Your task to perform on an android device: Show the shopping cart on bestbuy.com. Add razer blade to the cart on bestbuy.com Image 0: 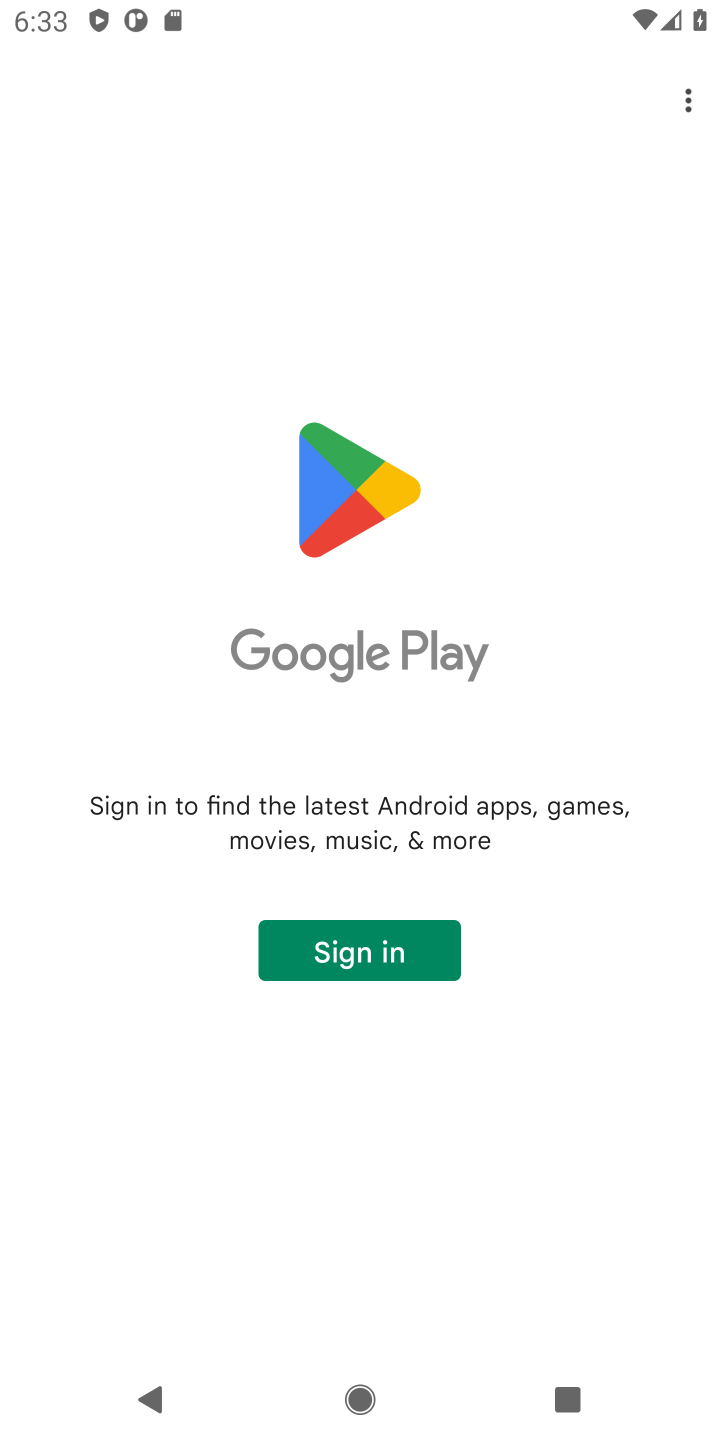
Step 0: press home button
Your task to perform on an android device: Show the shopping cart on bestbuy.com. Add razer blade to the cart on bestbuy.com Image 1: 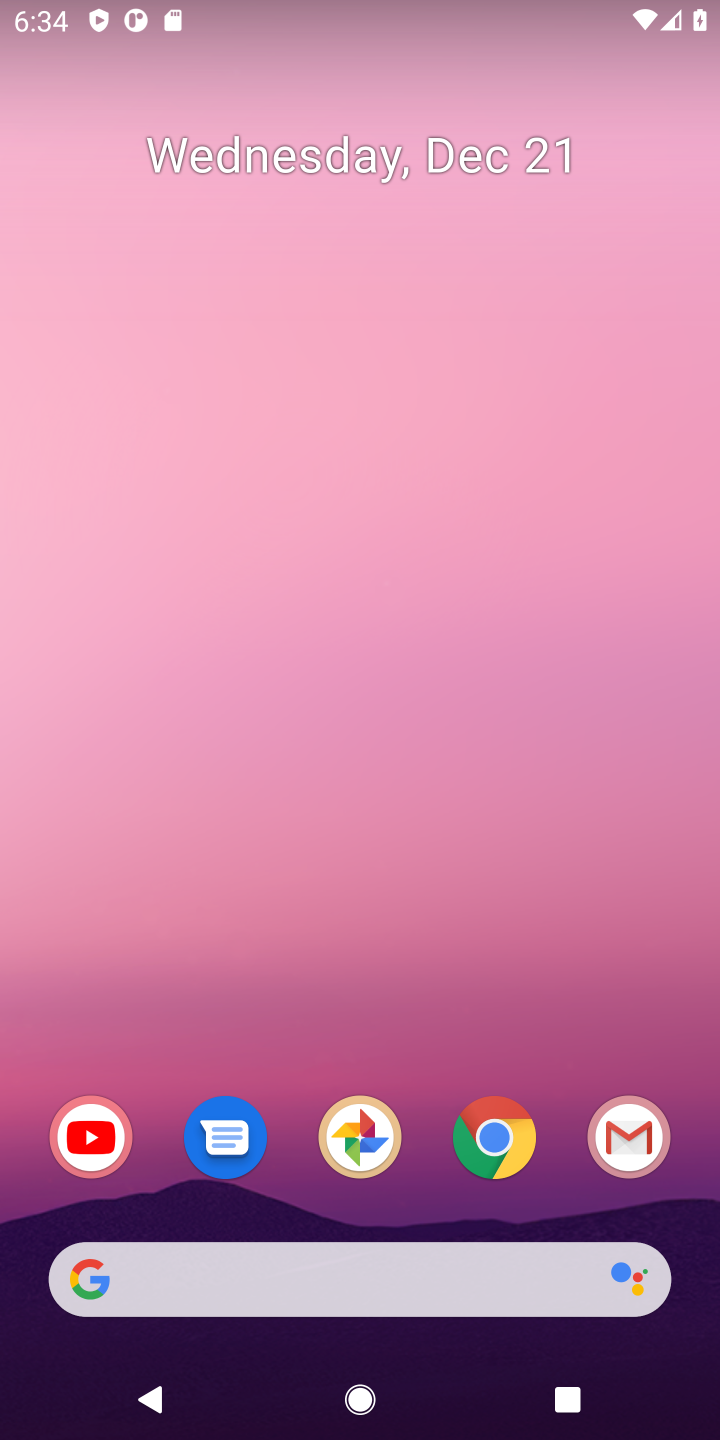
Step 1: click (499, 1147)
Your task to perform on an android device: Show the shopping cart on bestbuy.com. Add razer blade to the cart on bestbuy.com Image 2: 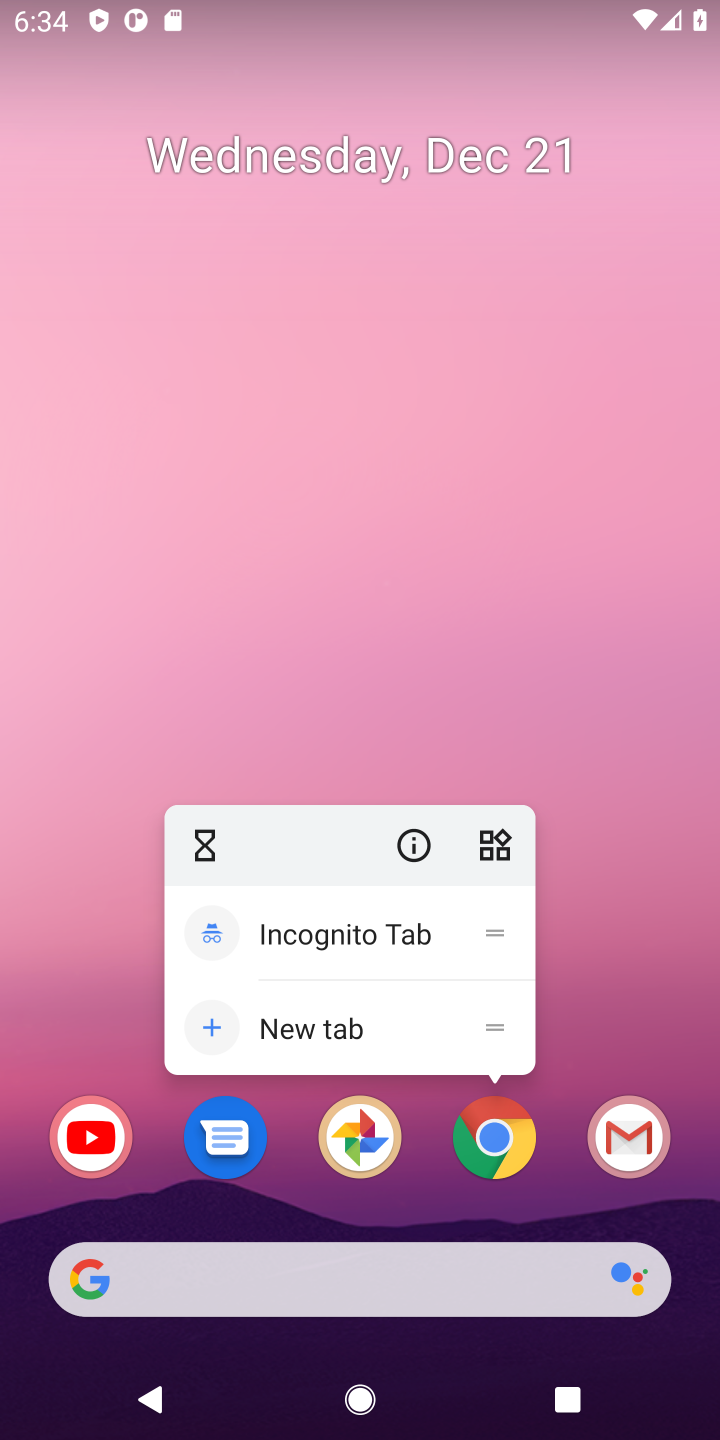
Step 2: click (499, 1147)
Your task to perform on an android device: Show the shopping cart on bestbuy.com. Add razer blade to the cart on bestbuy.com Image 3: 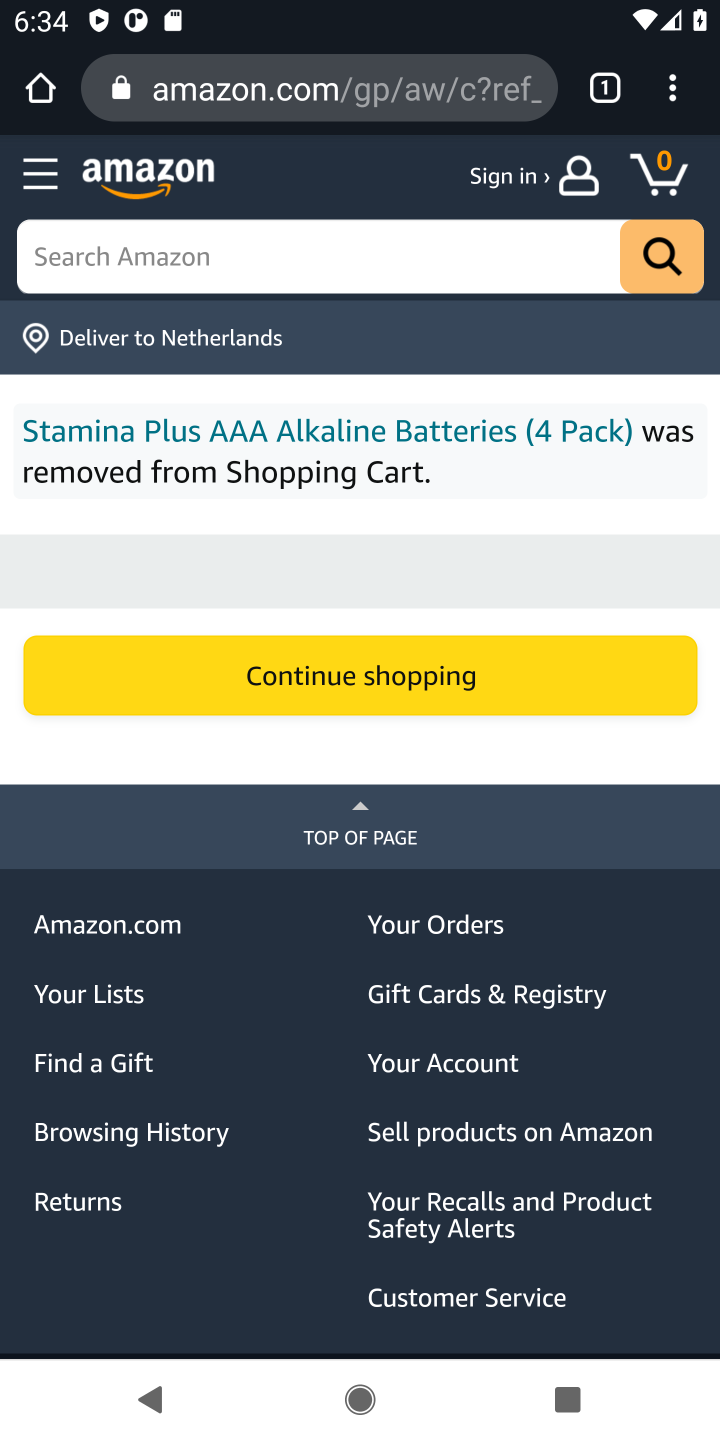
Step 3: click (284, 84)
Your task to perform on an android device: Show the shopping cart on bestbuy.com. Add razer blade to the cart on bestbuy.com Image 4: 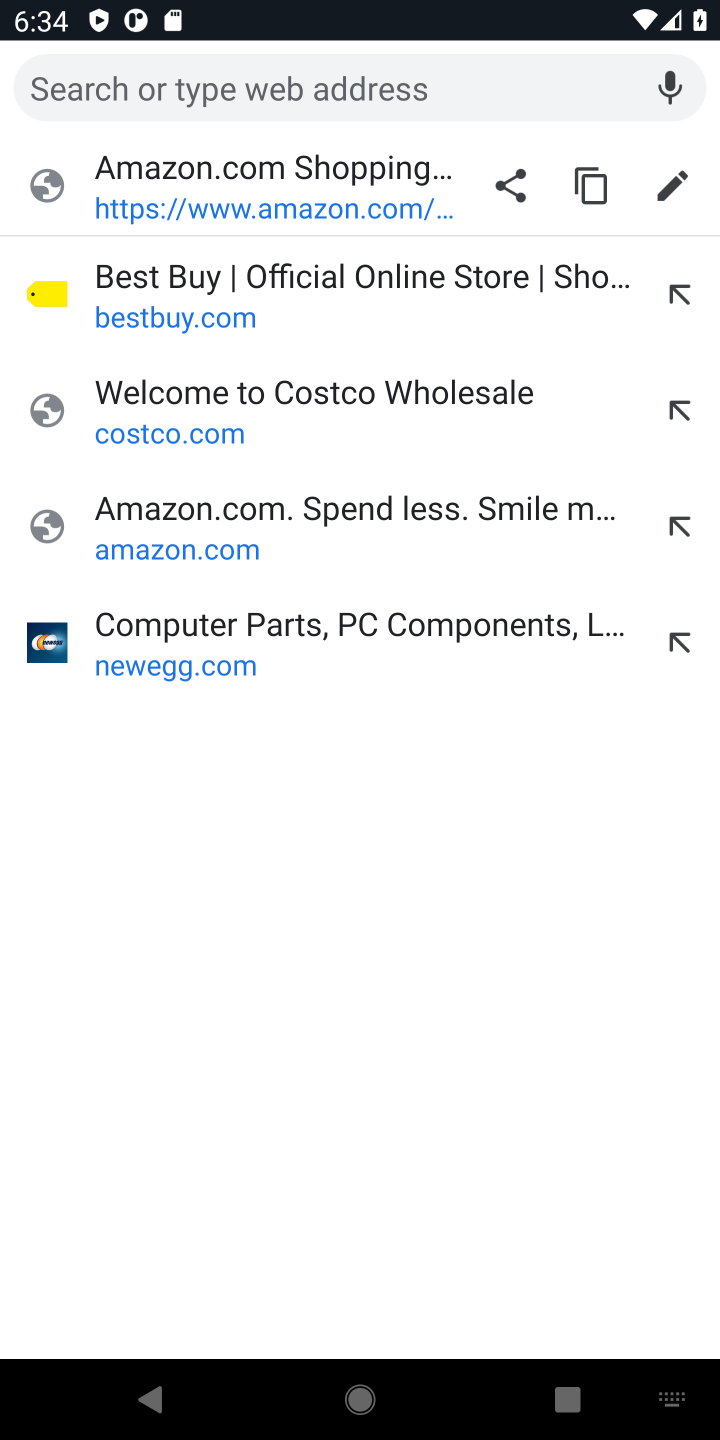
Step 4: click (157, 313)
Your task to perform on an android device: Show the shopping cart on bestbuy.com. Add razer blade to the cart on bestbuy.com Image 5: 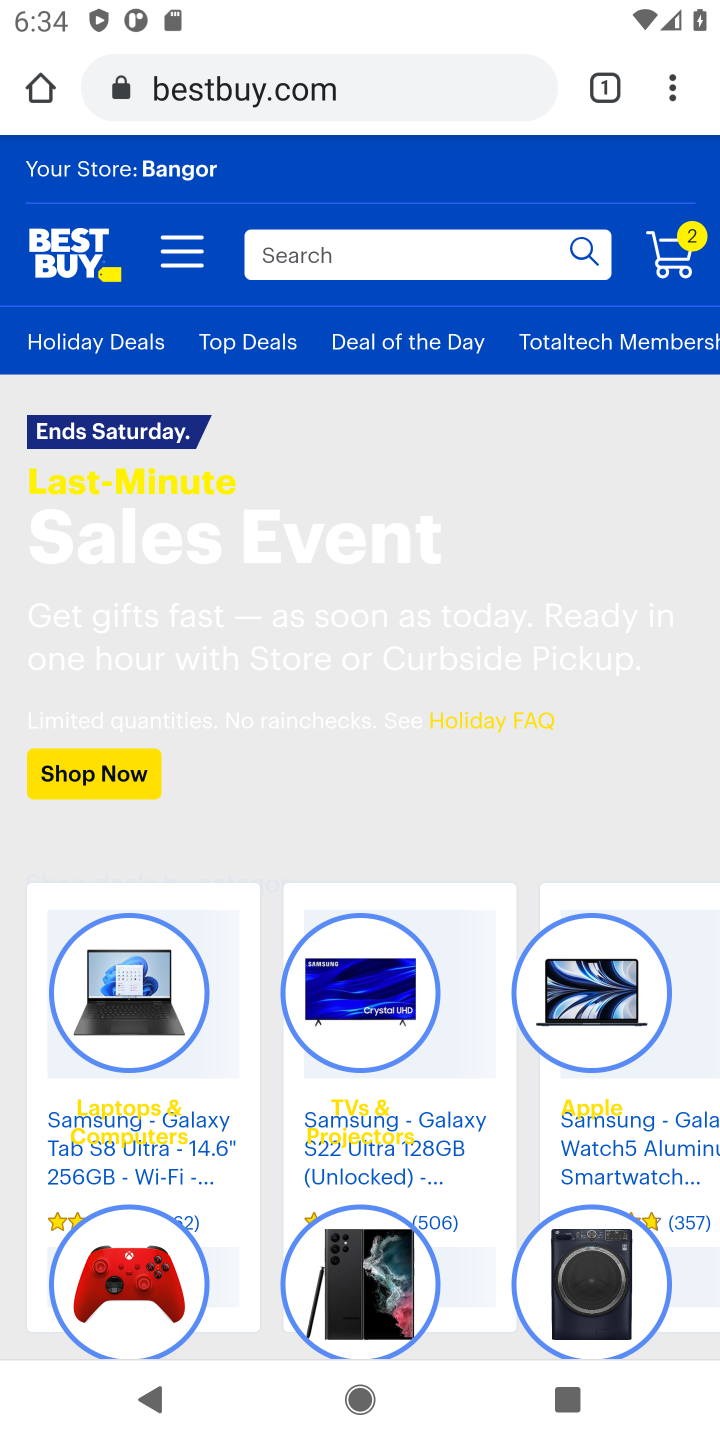
Step 5: click (669, 257)
Your task to perform on an android device: Show the shopping cart on bestbuy.com. Add razer blade to the cart on bestbuy.com Image 6: 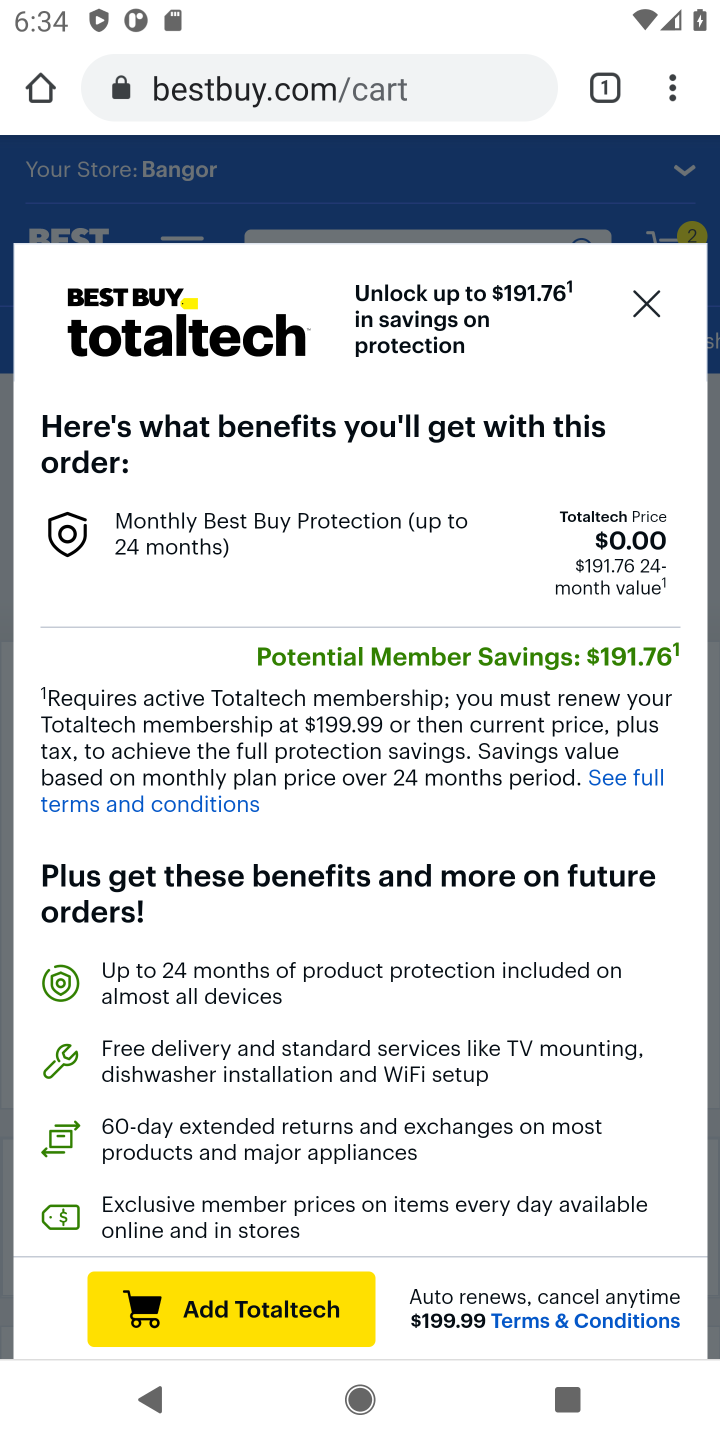
Step 6: click (659, 313)
Your task to perform on an android device: Show the shopping cart on bestbuy.com. Add razer blade to the cart on bestbuy.com Image 7: 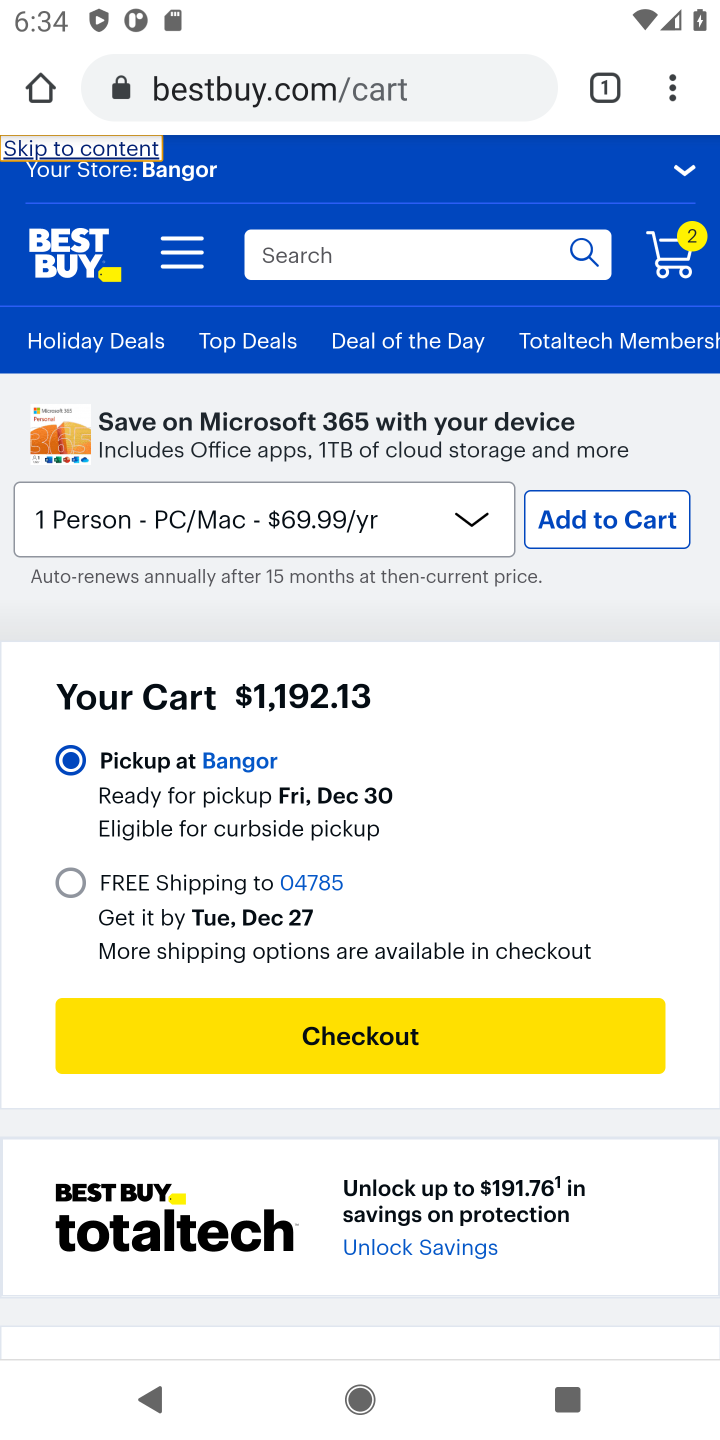
Step 7: click (284, 259)
Your task to perform on an android device: Show the shopping cart on bestbuy.com. Add razer blade to the cart on bestbuy.com Image 8: 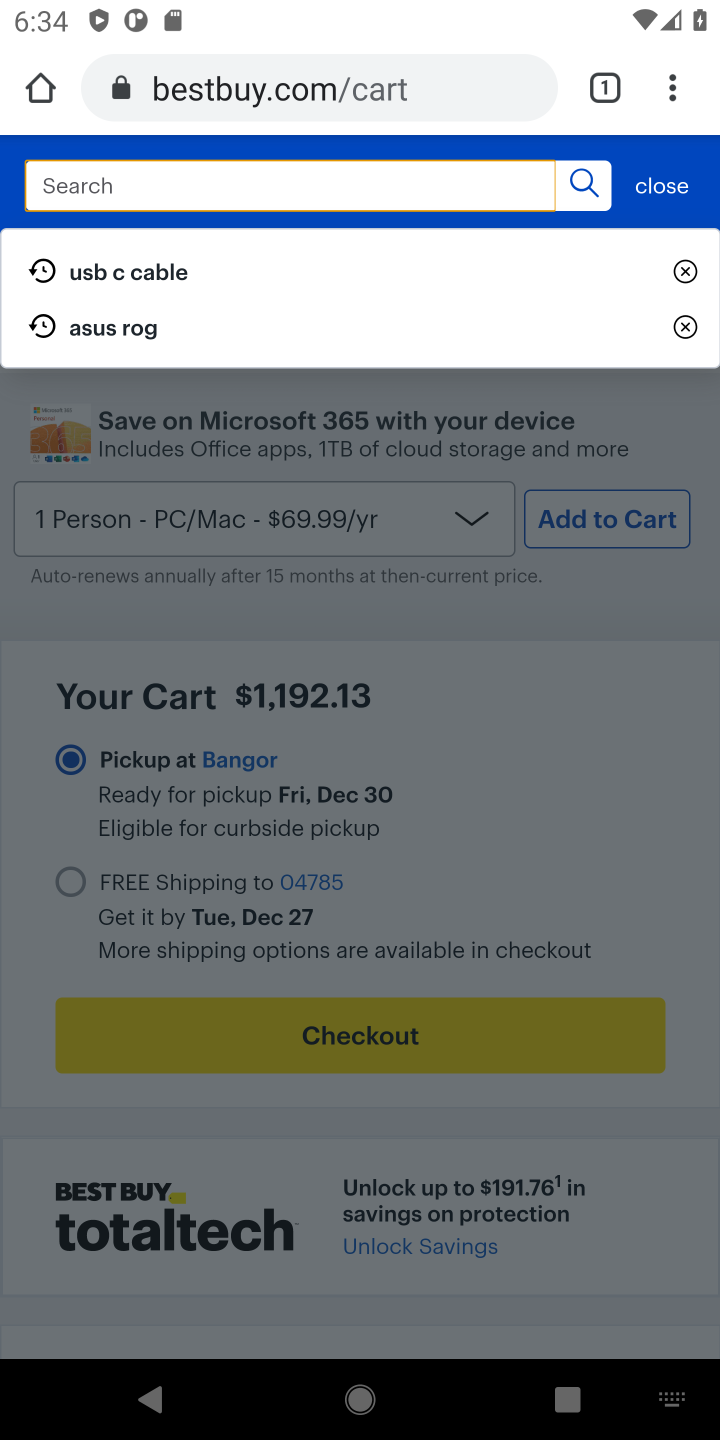
Step 8: type "razer blade"
Your task to perform on an android device: Show the shopping cart on bestbuy.com. Add razer blade to the cart on bestbuy.com Image 9: 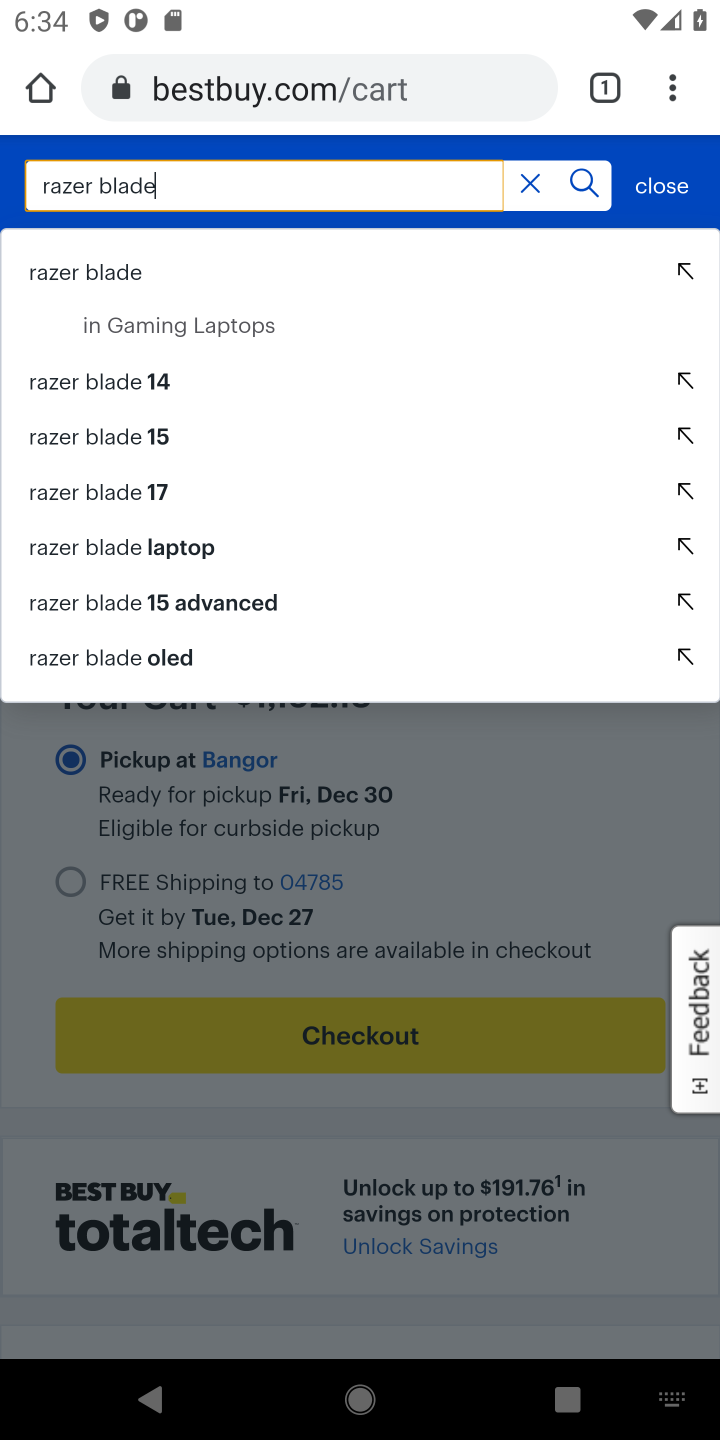
Step 9: click (106, 277)
Your task to perform on an android device: Show the shopping cart on bestbuy.com. Add razer blade to the cart on bestbuy.com Image 10: 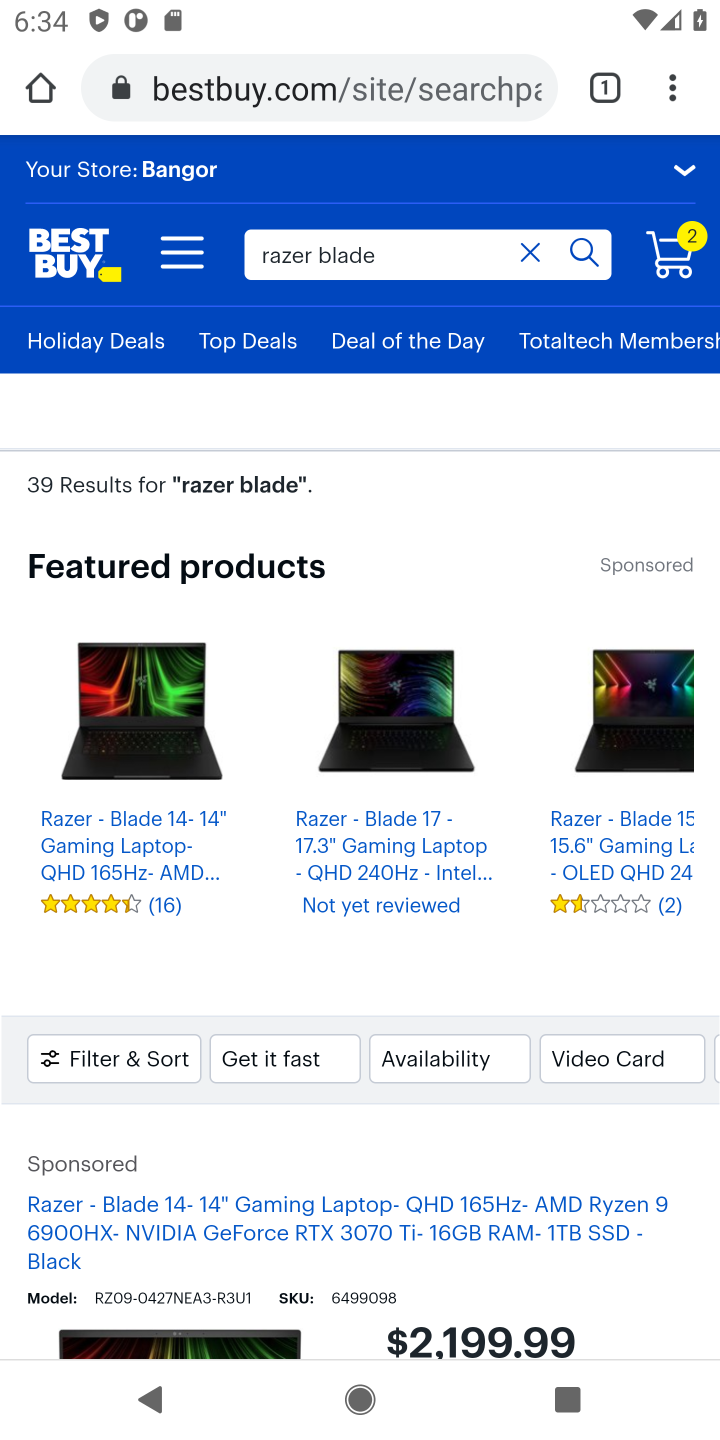
Step 10: drag from (320, 1081) to (304, 534)
Your task to perform on an android device: Show the shopping cart on bestbuy.com. Add razer blade to the cart on bestbuy.com Image 11: 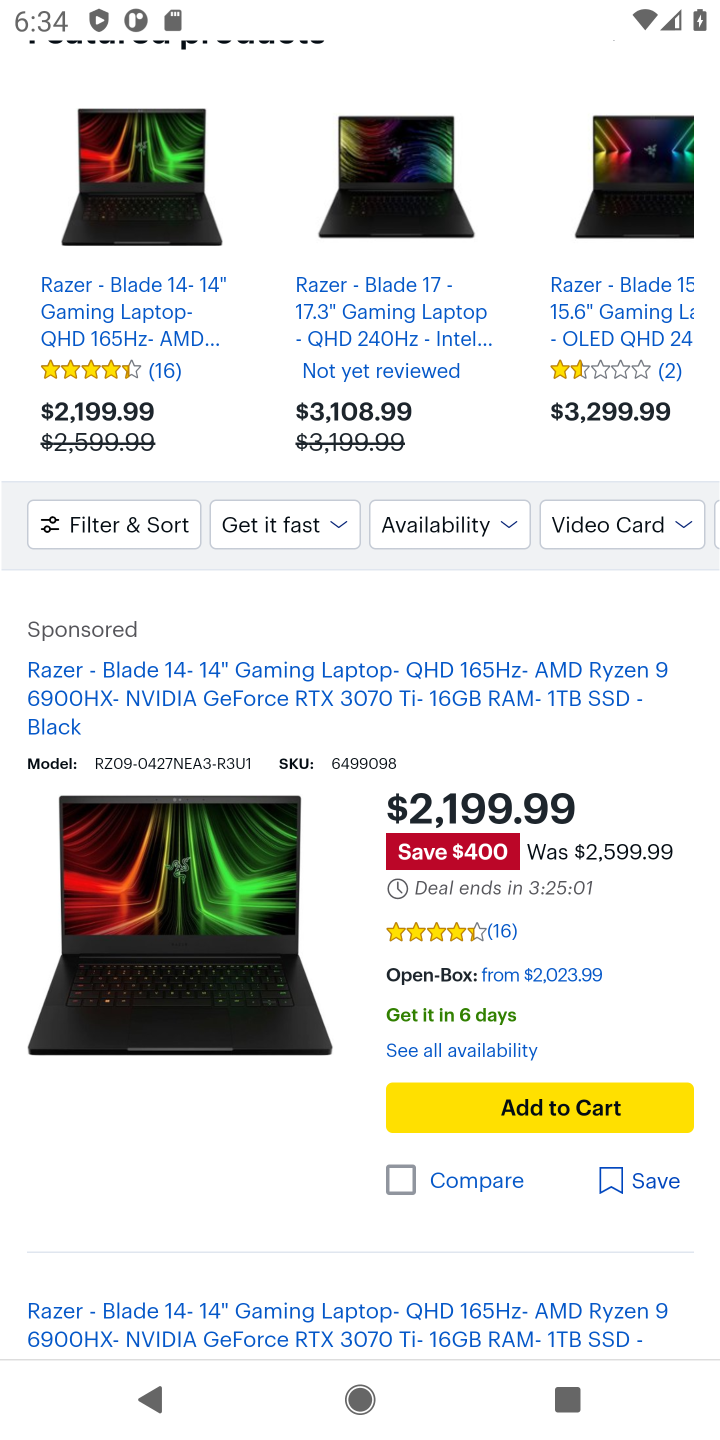
Step 11: click (507, 1105)
Your task to perform on an android device: Show the shopping cart on bestbuy.com. Add razer blade to the cart on bestbuy.com Image 12: 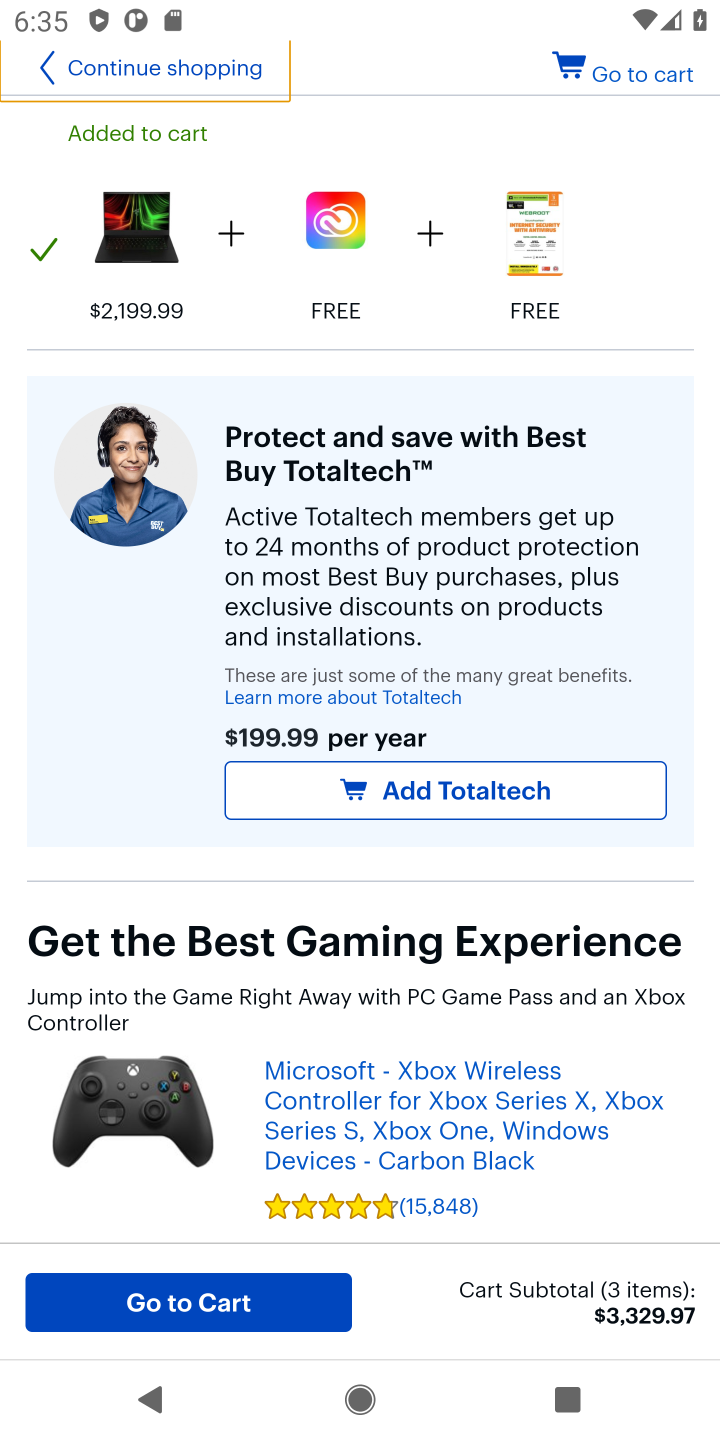
Step 12: drag from (473, 337) to (437, 483)
Your task to perform on an android device: Show the shopping cart on bestbuy.com. Add razer blade to the cart on bestbuy.com Image 13: 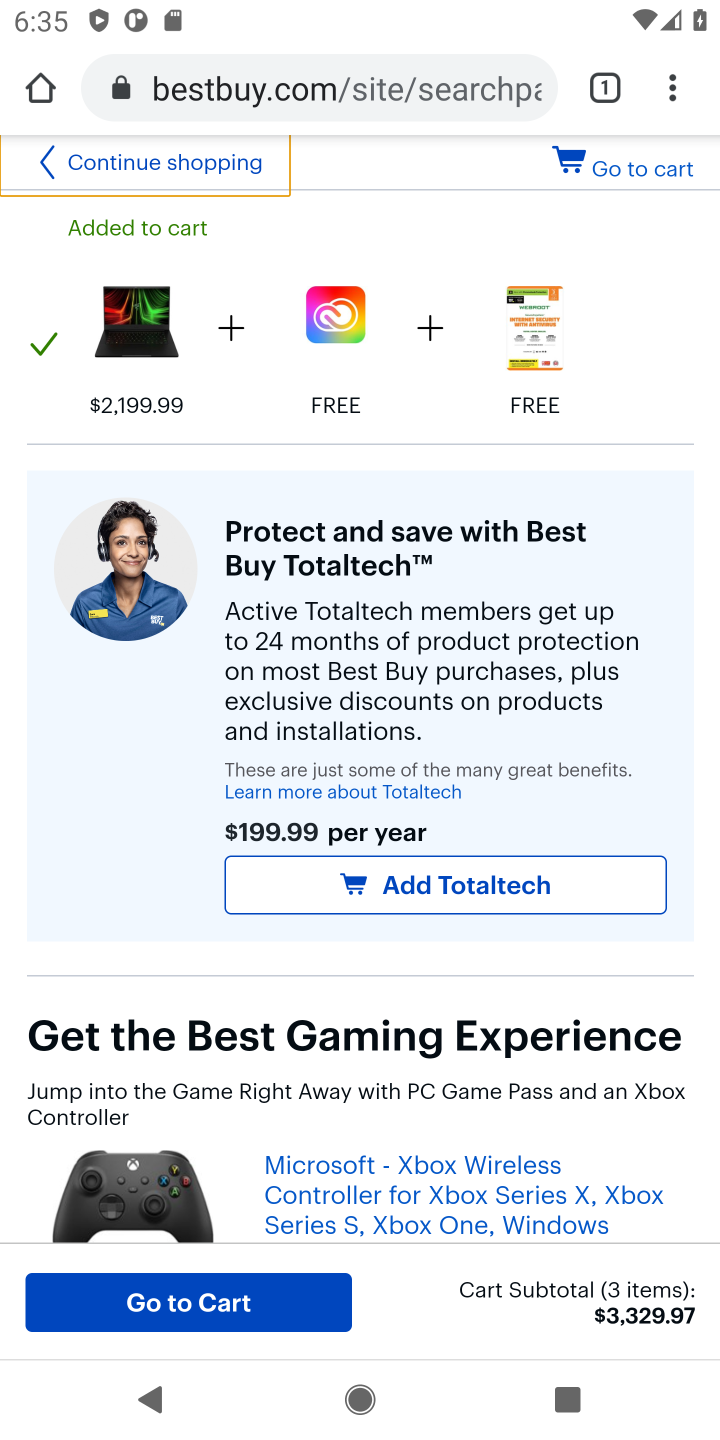
Step 13: drag from (476, 576) to (454, 754)
Your task to perform on an android device: Show the shopping cart on bestbuy.com. Add razer blade to the cart on bestbuy.com Image 14: 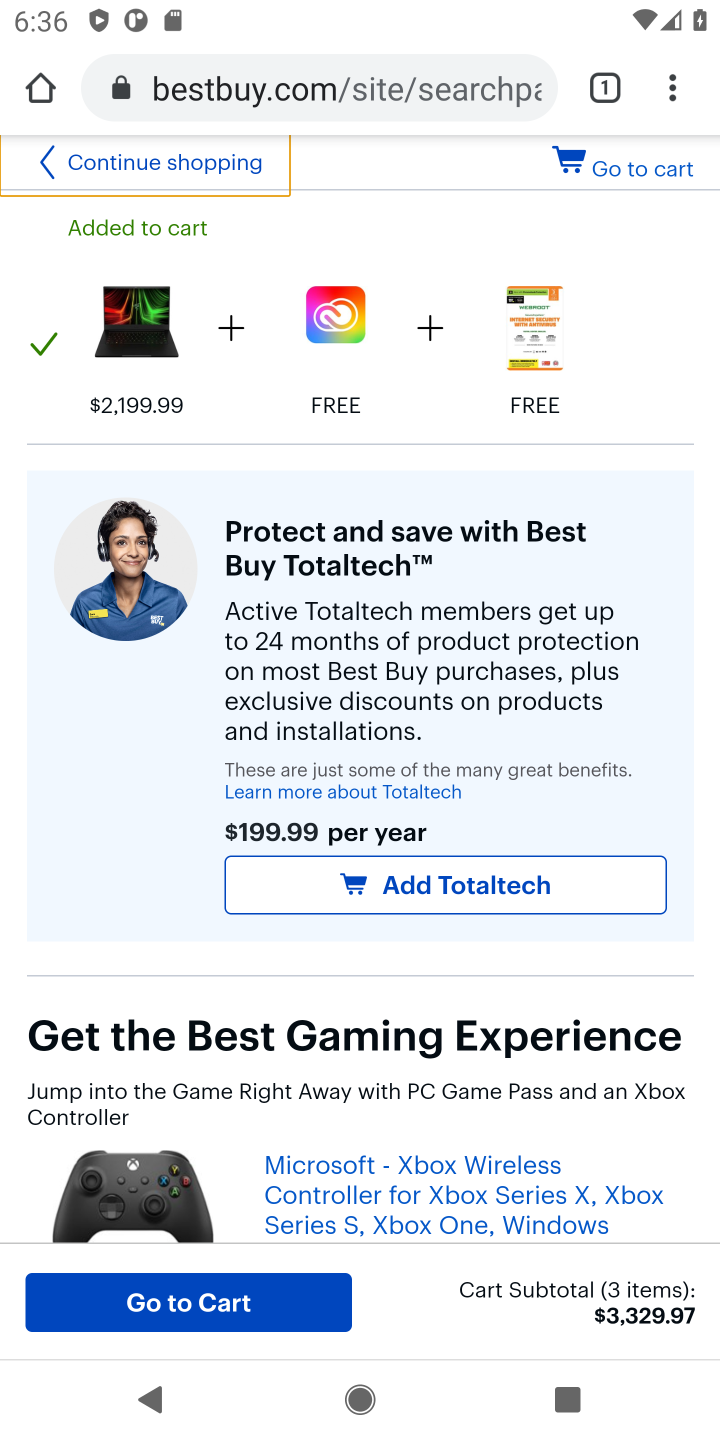
Step 14: press back button
Your task to perform on an android device: Show the shopping cart on bestbuy.com. Add razer blade to the cart on bestbuy.com Image 15: 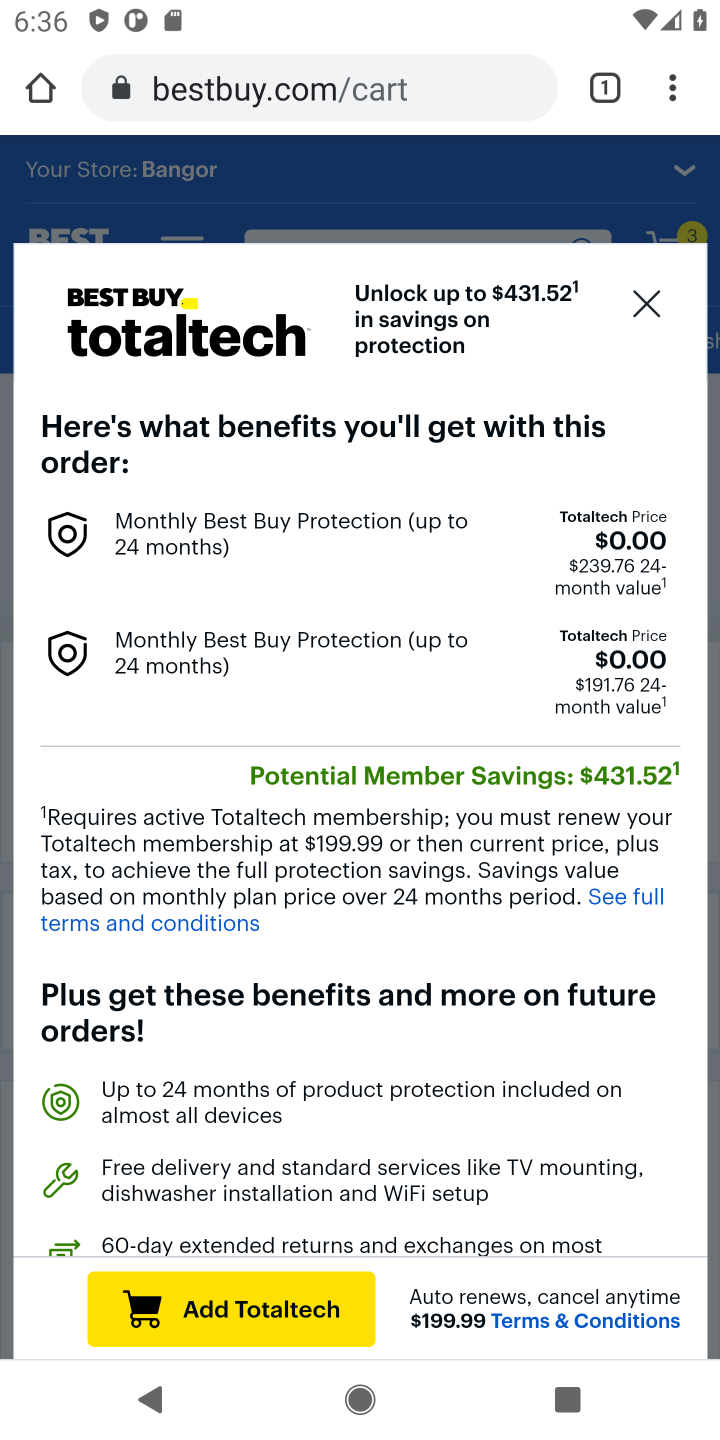
Step 15: click (641, 306)
Your task to perform on an android device: Show the shopping cart on bestbuy.com. Add razer blade to the cart on bestbuy.com Image 16: 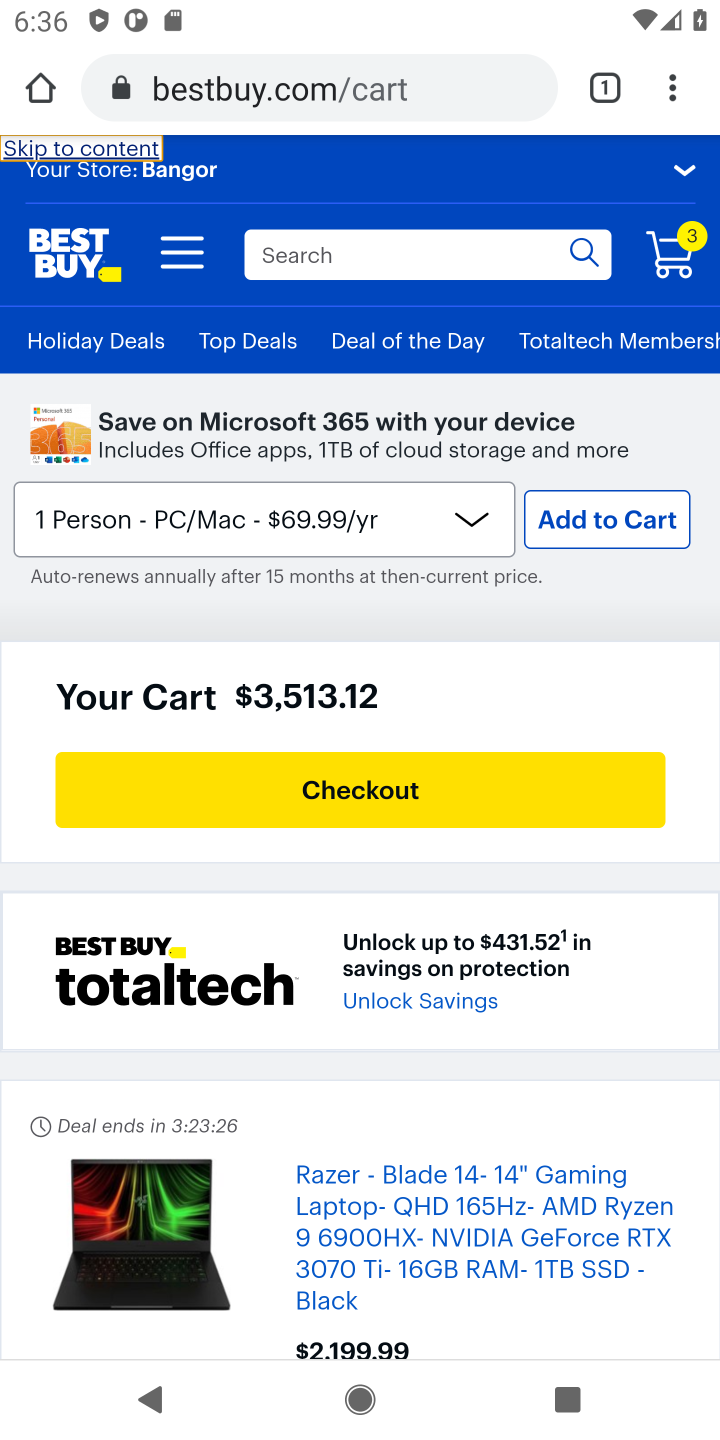
Step 16: task complete